Your task to perform on an android device: open sync settings in chrome Image 0: 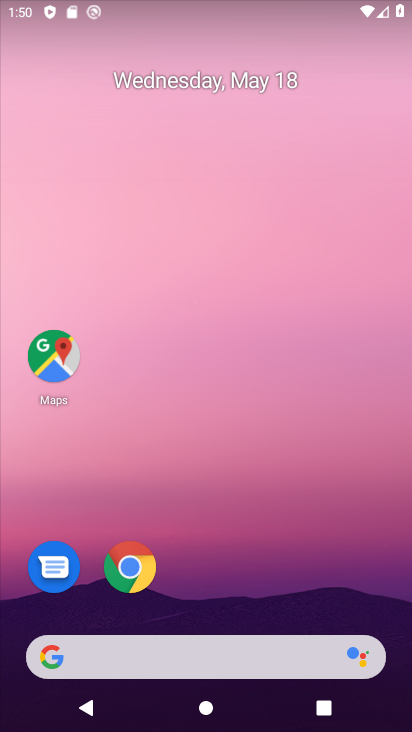
Step 0: drag from (256, 597) to (262, 170)
Your task to perform on an android device: open sync settings in chrome Image 1: 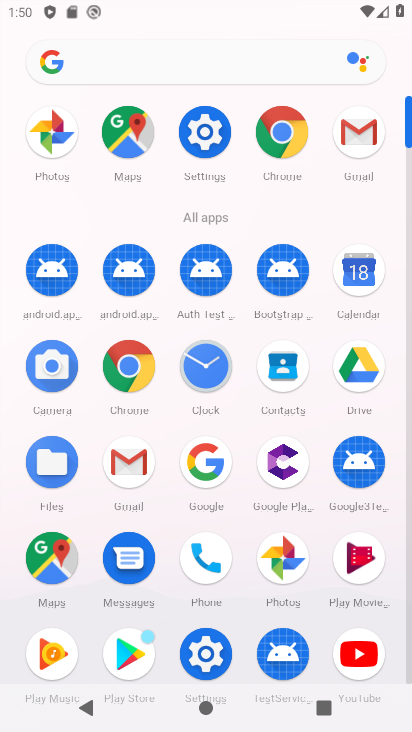
Step 1: click (273, 131)
Your task to perform on an android device: open sync settings in chrome Image 2: 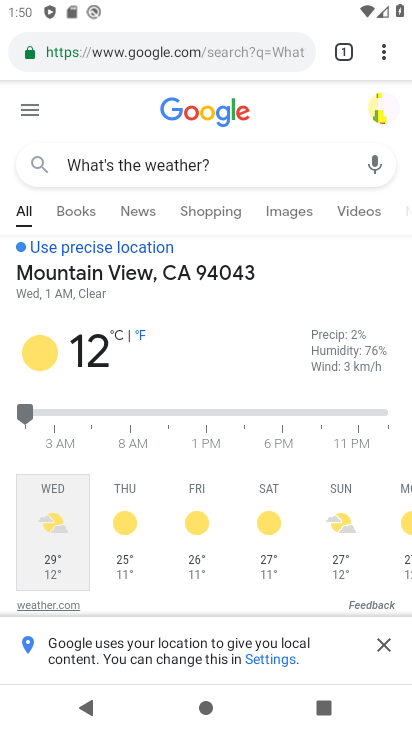
Step 2: click (375, 59)
Your task to perform on an android device: open sync settings in chrome Image 3: 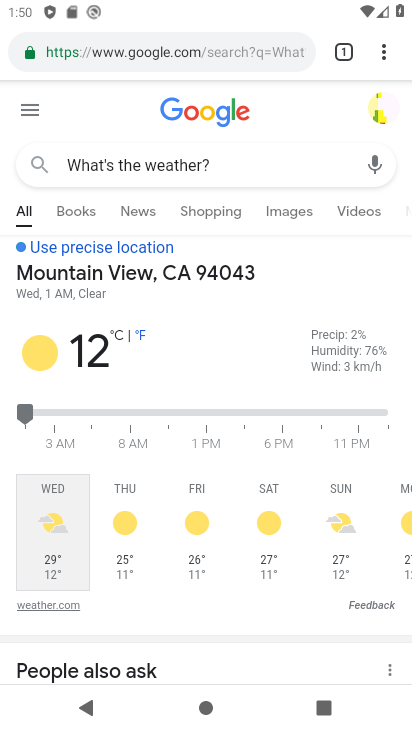
Step 3: click (391, 55)
Your task to perform on an android device: open sync settings in chrome Image 4: 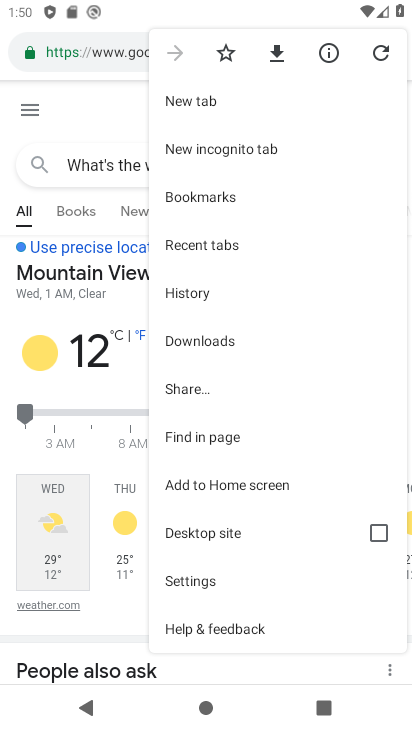
Step 4: click (225, 105)
Your task to perform on an android device: open sync settings in chrome Image 5: 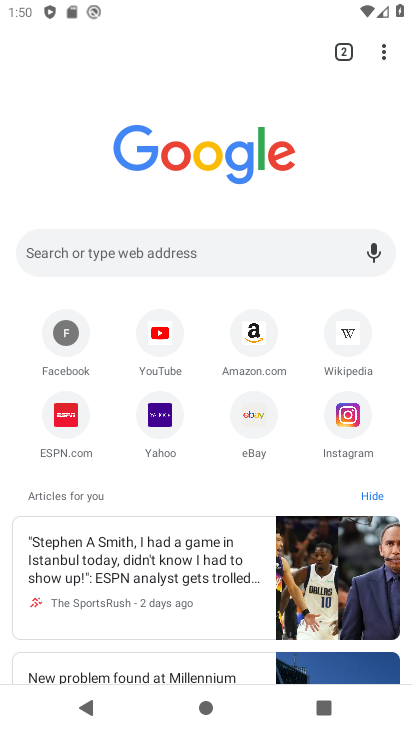
Step 5: click (374, 49)
Your task to perform on an android device: open sync settings in chrome Image 6: 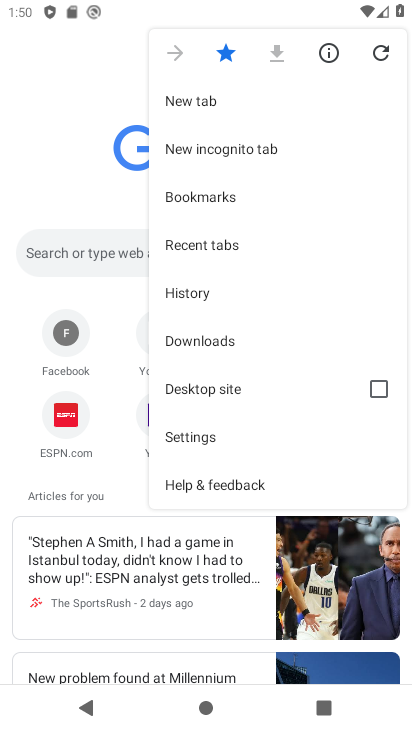
Step 6: click (221, 427)
Your task to perform on an android device: open sync settings in chrome Image 7: 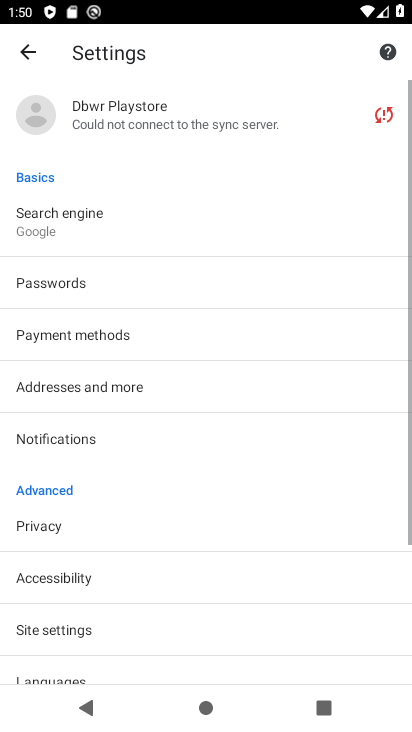
Step 7: click (146, 123)
Your task to perform on an android device: open sync settings in chrome Image 8: 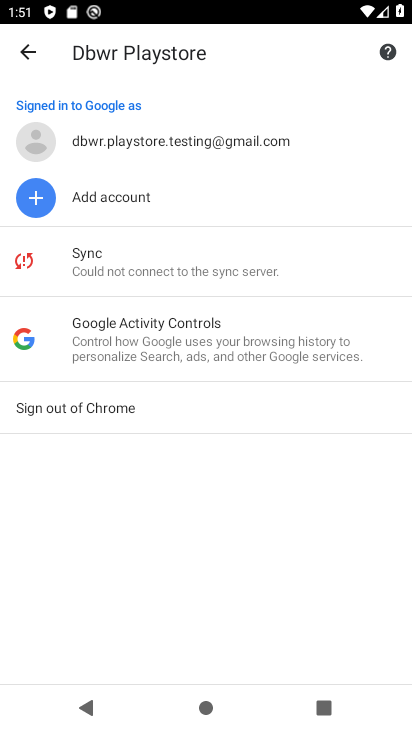
Step 8: task complete